Your task to perform on an android device: Search for vegetarian restaurants on Maps Image 0: 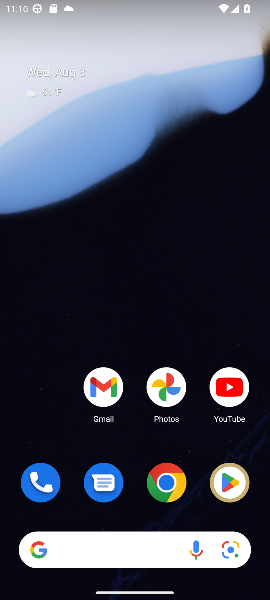
Step 0: drag from (132, 512) to (132, 174)
Your task to perform on an android device: Search for vegetarian restaurants on Maps Image 1: 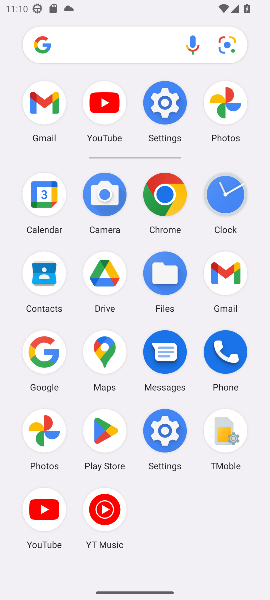
Step 1: click (111, 348)
Your task to perform on an android device: Search for vegetarian restaurants on Maps Image 2: 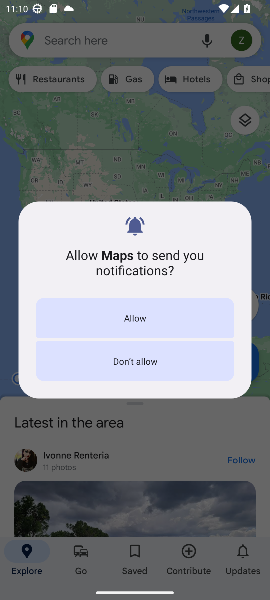
Step 2: click (176, 328)
Your task to perform on an android device: Search for vegetarian restaurants on Maps Image 3: 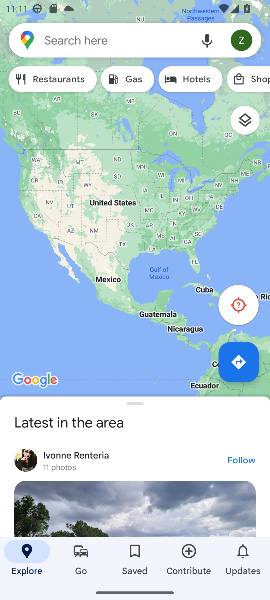
Step 3: click (121, 45)
Your task to perform on an android device: Search for vegetarian restaurants on Maps Image 4: 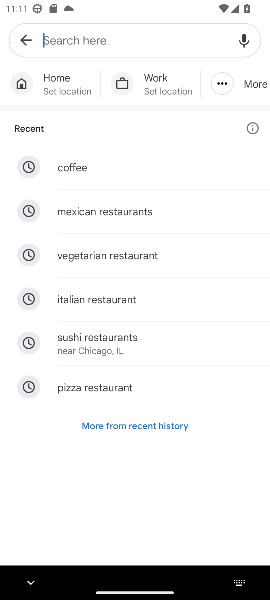
Step 4: click (115, 269)
Your task to perform on an android device: Search for vegetarian restaurants on Maps Image 5: 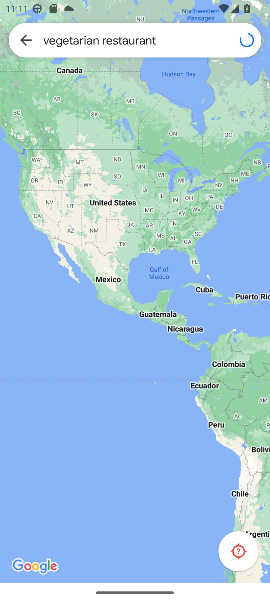
Step 5: task complete